Your task to perform on an android device: Set the phone to "Do not disturb". Image 0: 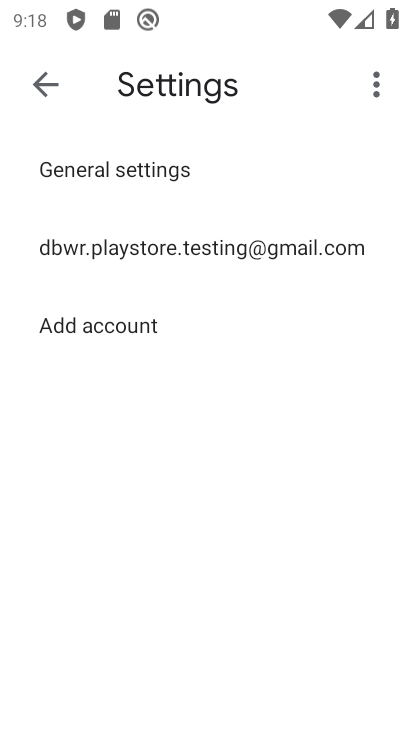
Step 0: press home button
Your task to perform on an android device: Set the phone to "Do not disturb". Image 1: 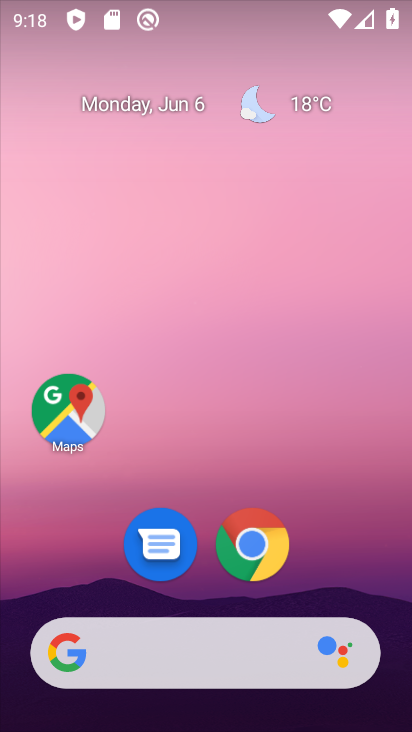
Step 1: drag from (392, 666) to (289, 123)
Your task to perform on an android device: Set the phone to "Do not disturb". Image 2: 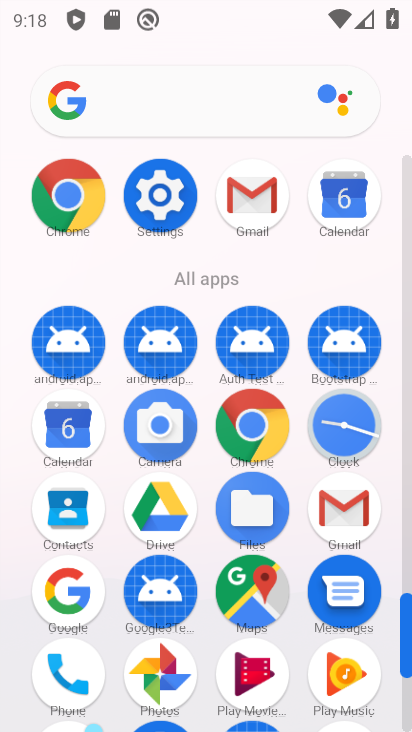
Step 2: click (406, 698)
Your task to perform on an android device: Set the phone to "Do not disturb". Image 3: 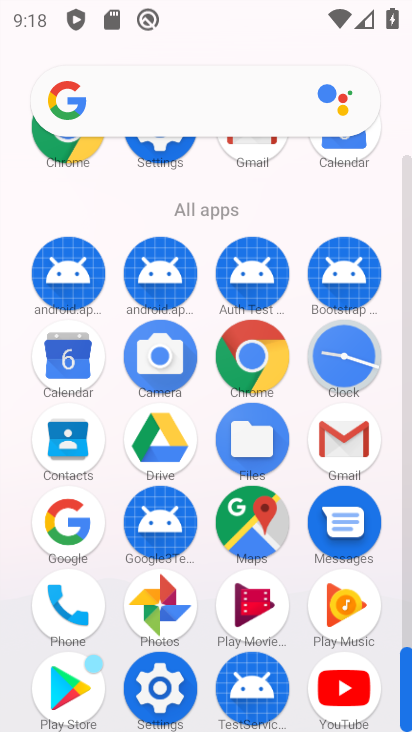
Step 3: click (160, 689)
Your task to perform on an android device: Set the phone to "Do not disturb". Image 4: 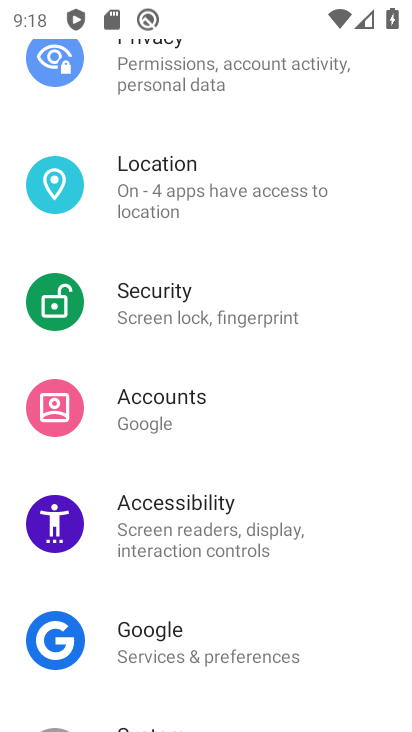
Step 4: drag from (388, 264) to (366, 514)
Your task to perform on an android device: Set the phone to "Do not disturb". Image 5: 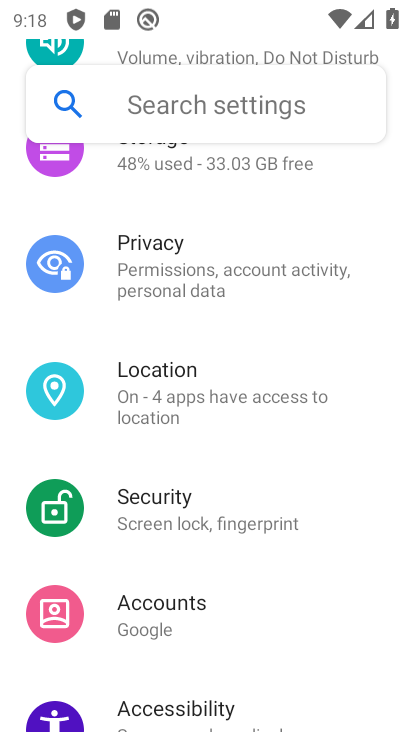
Step 5: drag from (363, 253) to (348, 482)
Your task to perform on an android device: Set the phone to "Do not disturb". Image 6: 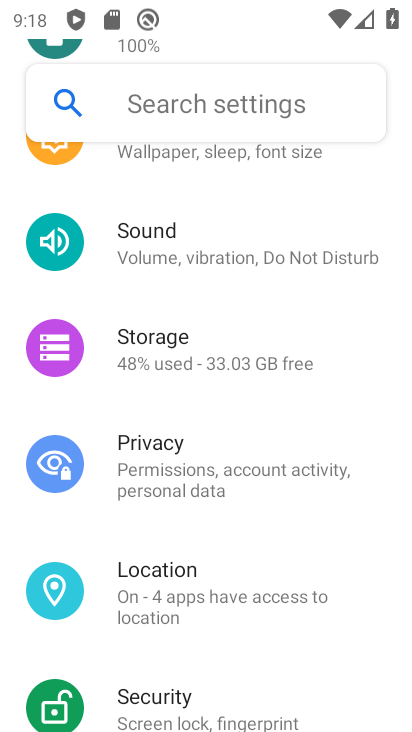
Step 6: drag from (358, 274) to (350, 385)
Your task to perform on an android device: Set the phone to "Do not disturb". Image 7: 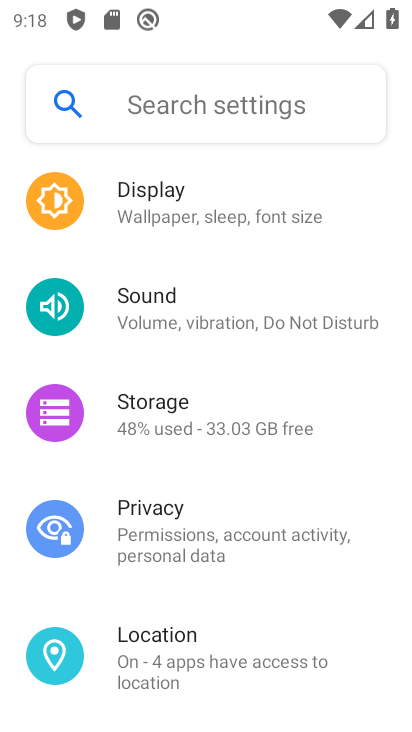
Step 7: click (159, 302)
Your task to perform on an android device: Set the phone to "Do not disturb". Image 8: 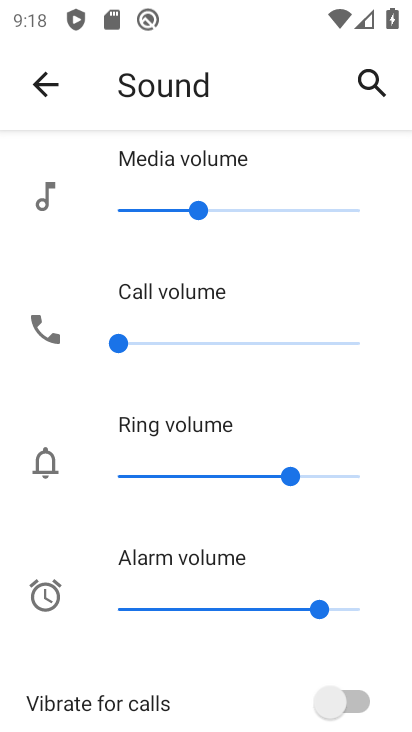
Step 8: drag from (372, 651) to (362, 332)
Your task to perform on an android device: Set the phone to "Do not disturb". Image 9: 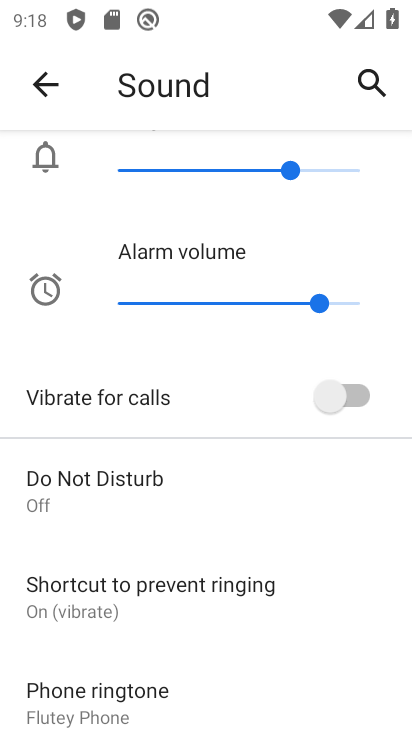
Step 9: click (59, 469)
Your task to perform on an android device: Set the phone to "Do not disturb". Image 10: 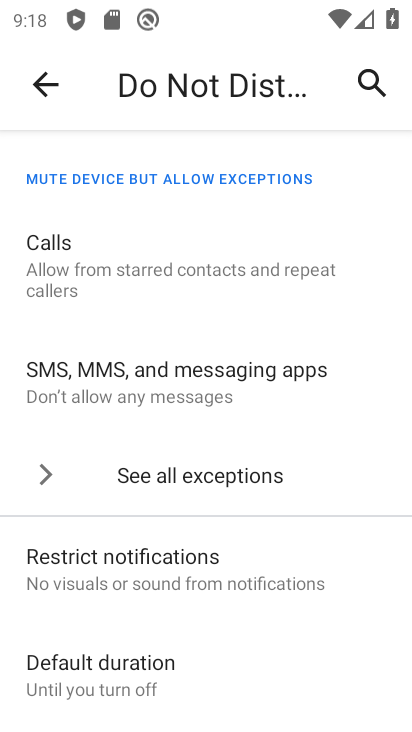
Step 10: drag from (276, 684) to (299, 234)
Your task to perform on an android device: Set the phone to "Do not disturb". Image 11: 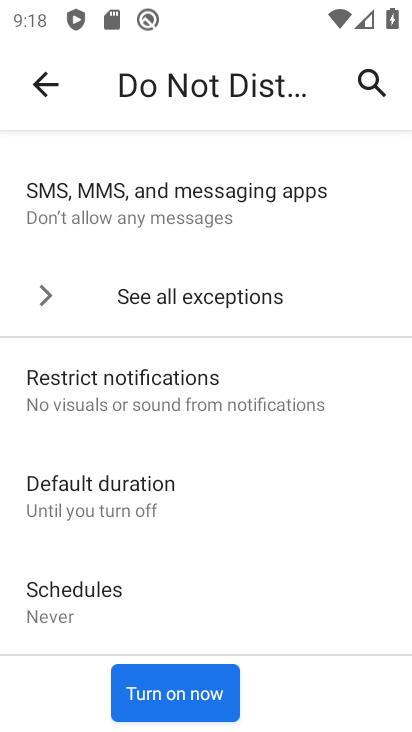
Step 11: click (176, 691)
Your task to perform on an android device: Set the phone to "Do not disturb". Image 12: 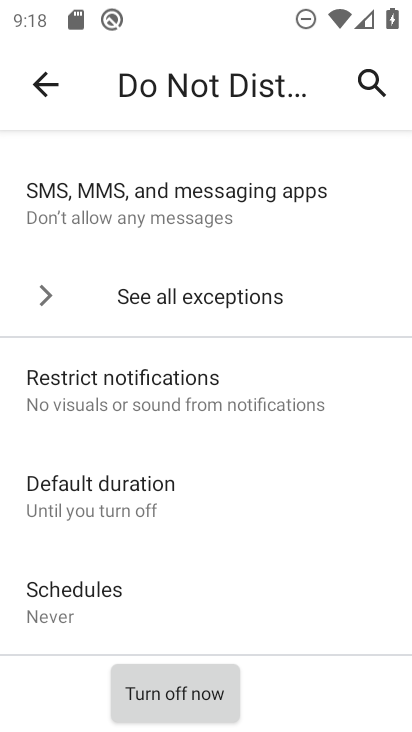
Step 12: task complete